Your task to perform on an android device: toggle show notifications on the lock screen Image 0: 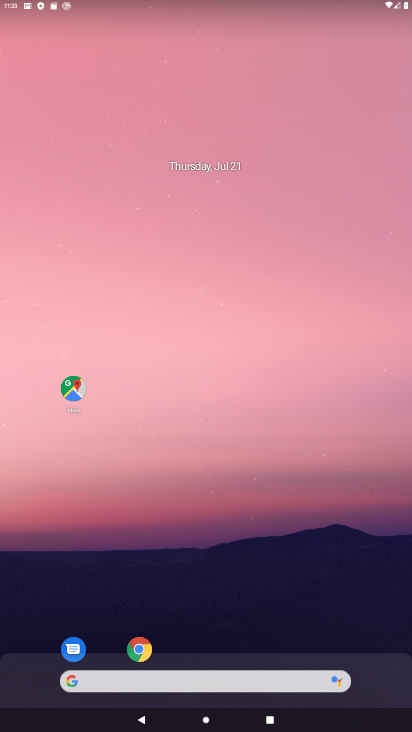
Step 0: drag from (228, 605) to (172, 9)
Your task to perform on an android device: toggle show notifications on the lock screen Image 1: 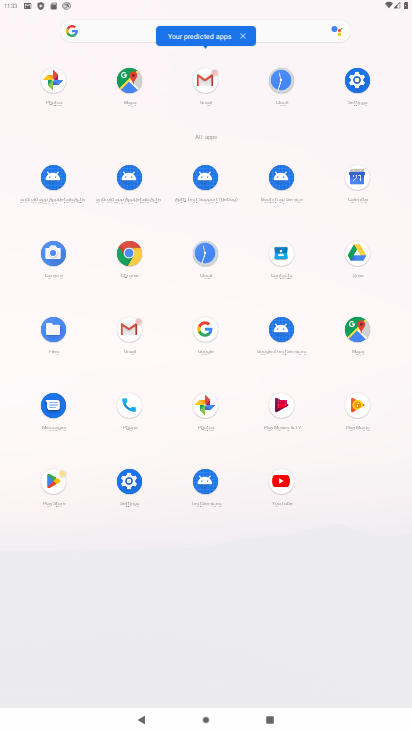
Step 1: click (355, 74)
Your task to perform on an android device: toggle show notifications on the lock screen Image 2: 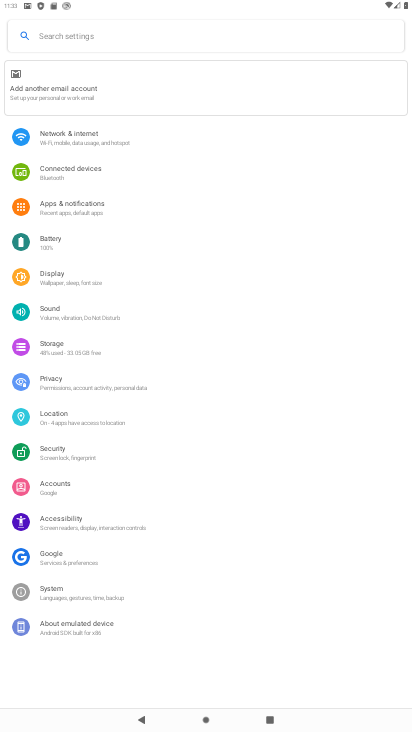
Step 2: click (70, 202)
Your task to perform on an android device: toggle show notifications on the lock screen Image 3: 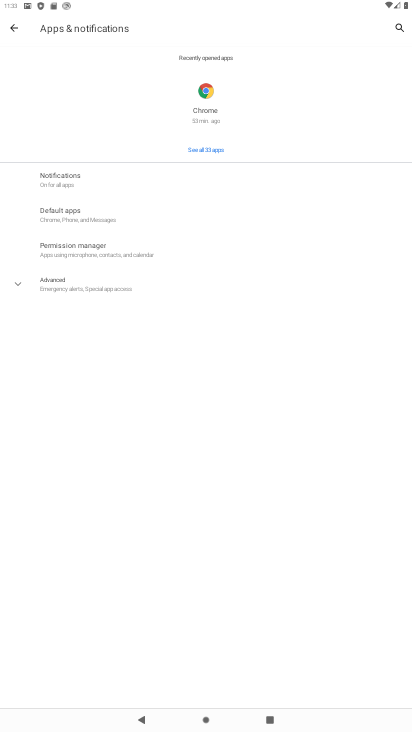
Step 3: click (62, 173)
Your task to perform on an android device: toggle show notifications on the lock screen Image 4: 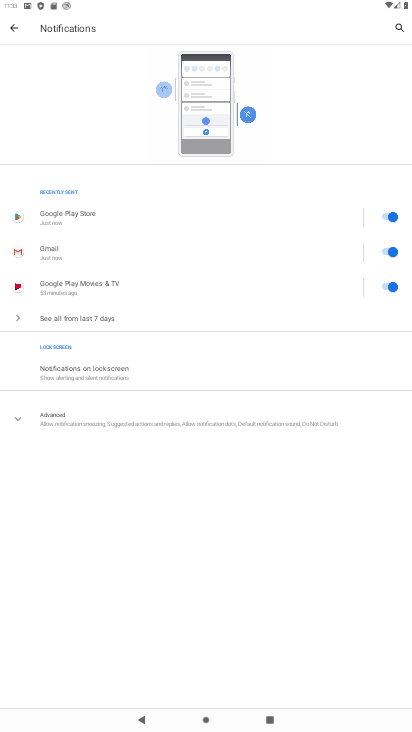
Step 4: click (91, 365)
Your task to perform on an android device: toggle show notifications on the lock screen Image 5: 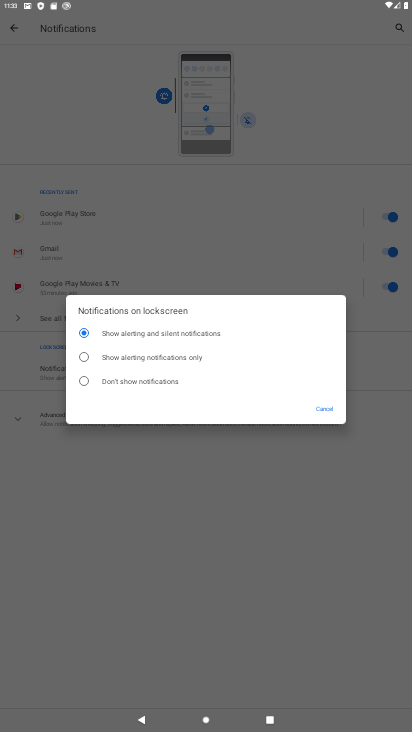
Step 5: click (82, 376)
Your task to perform on an android device: toggle show notifications on the lock screen Image 6: 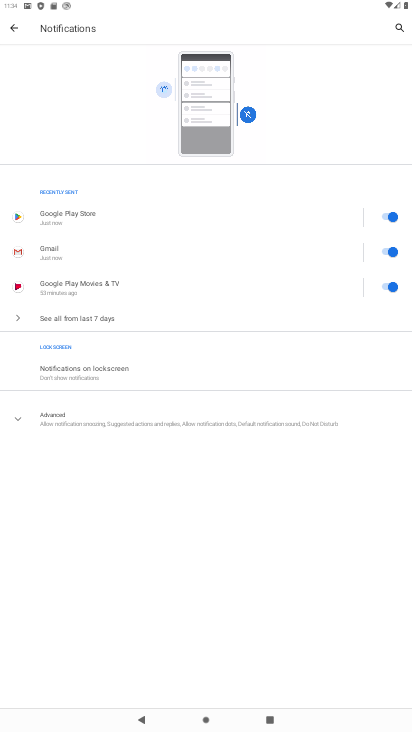
Step 6: task complete